Your task to perform on an android device: open app "Walmart Shopping & Grocery" (install if not already installed) and enter user name: "Hans@icloud.com" and password: "executing" Image 0: 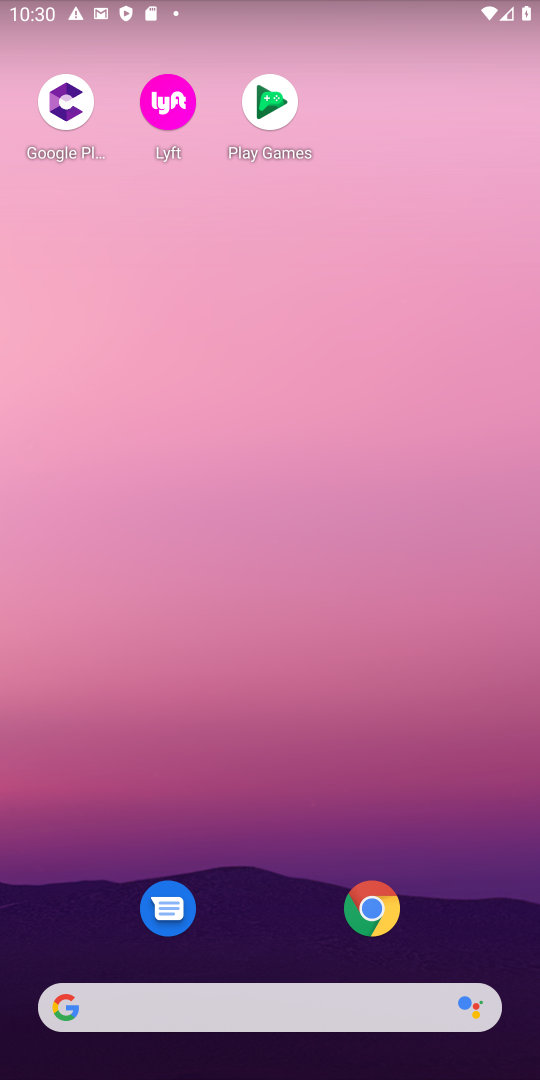
Step 0: drag from (289, 945) to (331, 24)
Your task to perform on an android device: open app "Walmart Shopping & Grocery" (install if not already installed) and enter user name: "Hans@icloud.com" and password: "executing" Image 1: 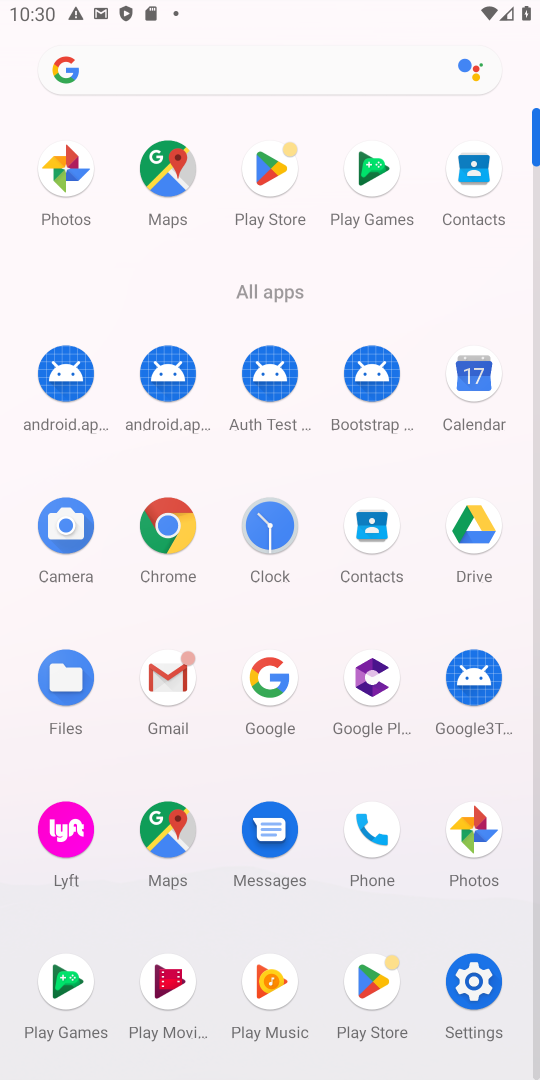
Step 1: click (281, 162)
Your task to perform on an android device: open app "Walmart Shopping & Grocery" (install if not already installed) and enter user name: "Hans@icloud.com" and password: "executing" Image 2: 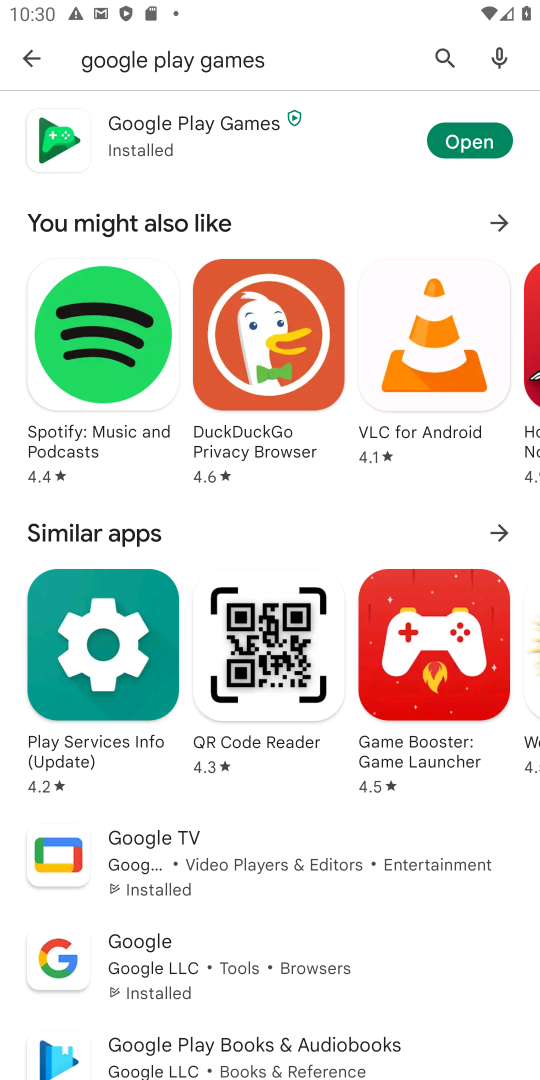
Step 2: click (446, 57)
Your task to perform on an android device: open app "Walmart Shopping & Grocery" (install if not already installed) and enter user name: "Hans@icloud.com" and password: "executing" Image 3: 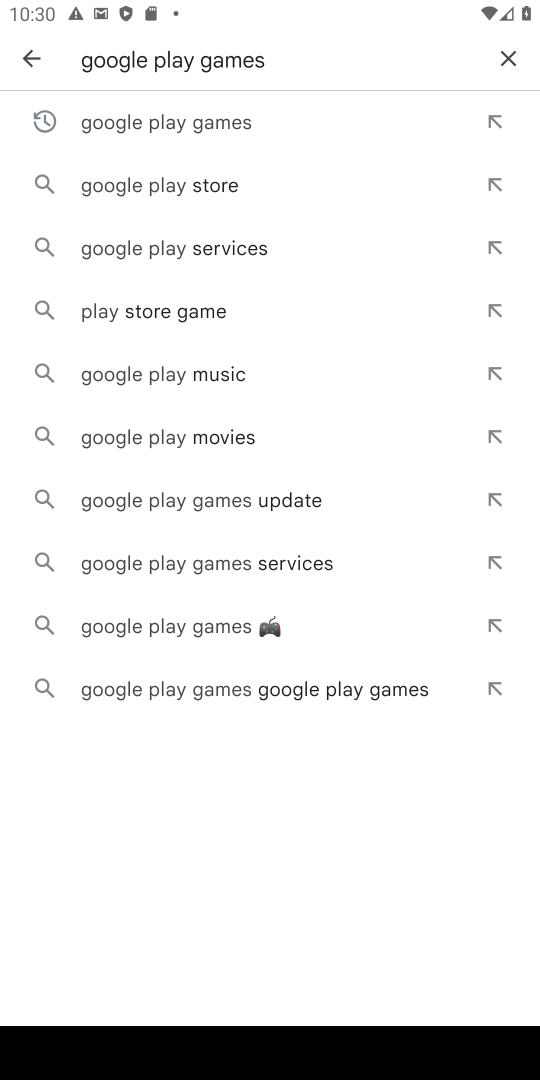
Step 3: click (510, 60)
Your task to perform on an android device: open app "Walmart Shopping & Grocery" (install if not already installed) and enter user name: "Hans@icloud.com" and password: "executing" Image 4: 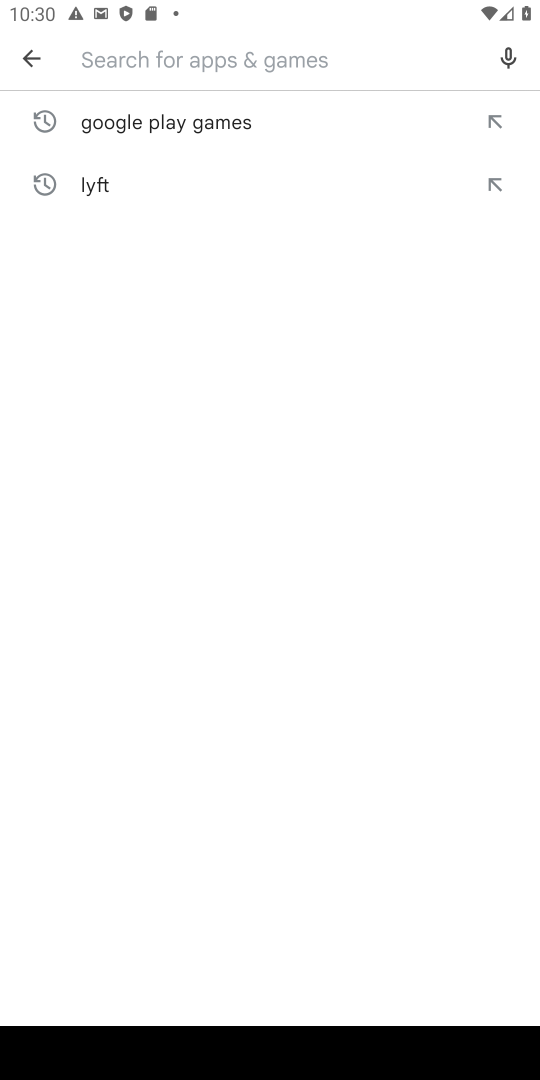
Step 4: click (152, 68)
Your task to perform on an android device: open app "Walmart Shopping & Grocery" (install if not already installed) and enter user name: "Hans@icloud.com" and password: "executing" Image 5: 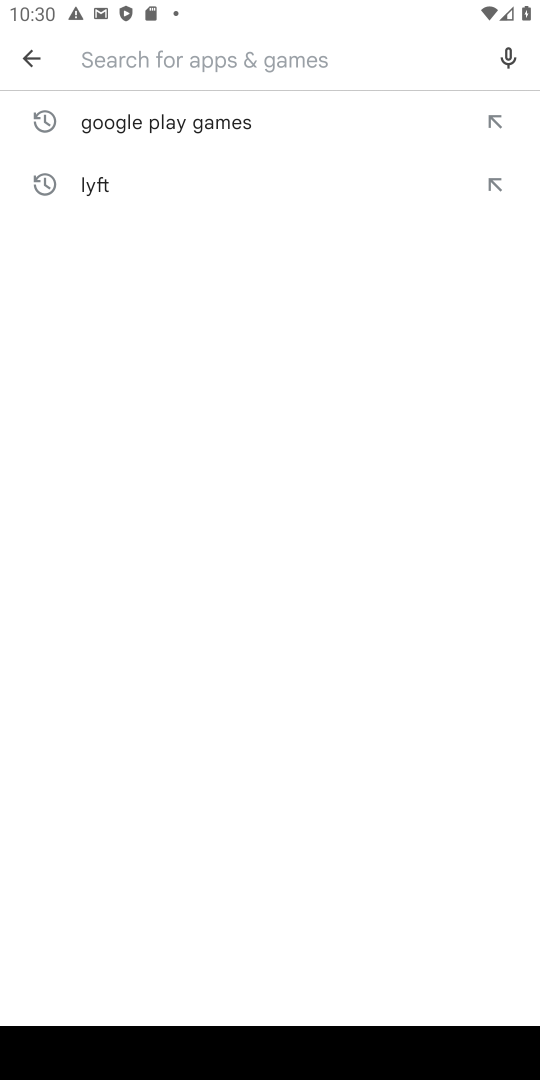
Step 5: type "walmart"
Your task to perform on an android device: open app "Walmart Shopping & Grocery" (install if not already installed) and enter user name: "Hans@icloud.com" and password: "executing" Image 6: 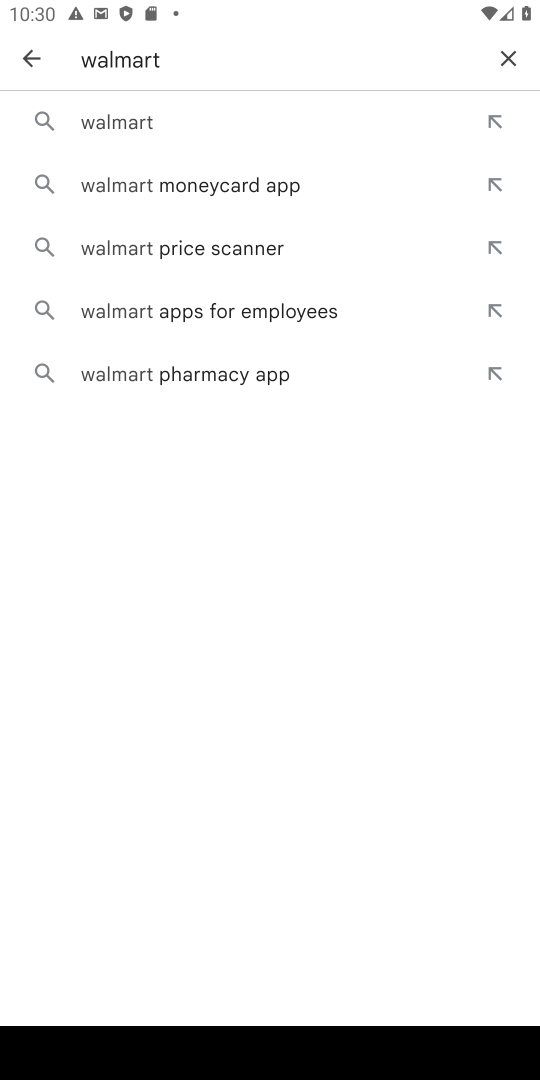
Step 6: click (120, 124)
Your task to perform on an android device: open app "Walmart Shopping & Grocery" (install if not already installed) and enter user name: "Hans@icloud.com" and password: "executing" Image 7: 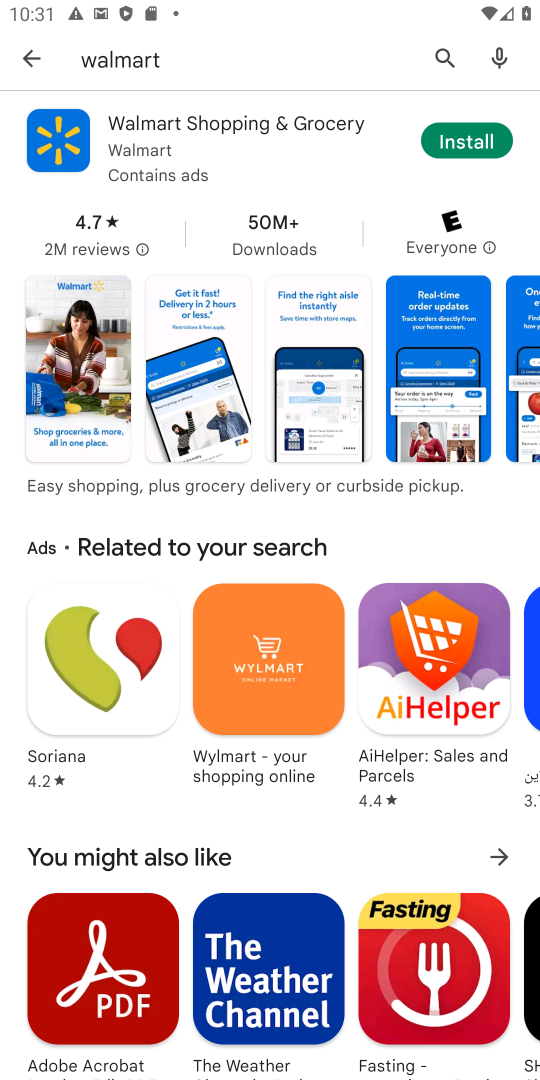
Step 7: click (479, 137)
Your task to perform on an android device: open app "Walmart Shopping & Grocery" (install if not already installed) and enter user name: "Hans@icloud.com" and password: "executing" Image 8: 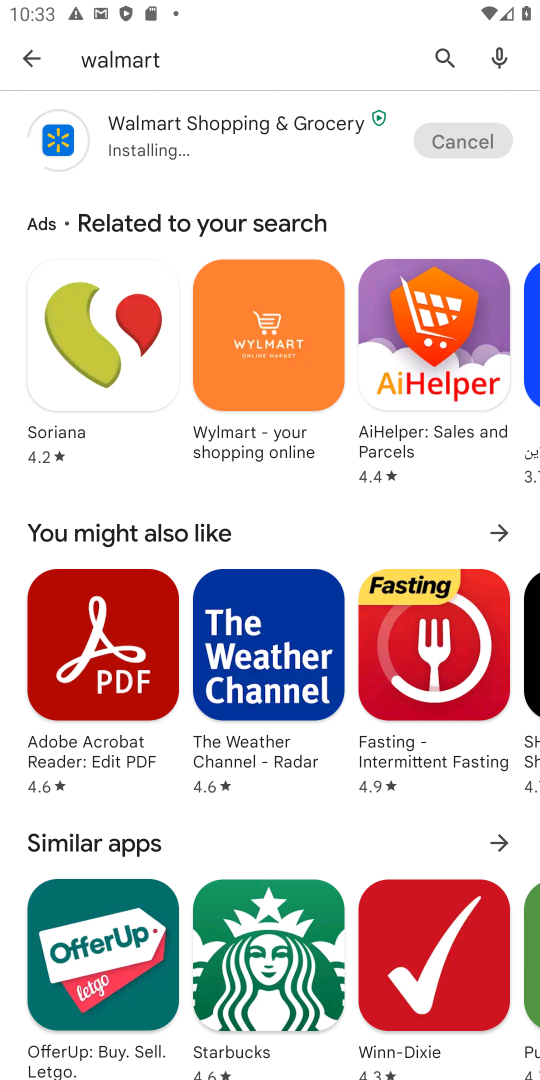
Step 8: press back button
Your task to perform on an android device: open app "Walmart Shopping & Grocery" (install if not already installed) and enter user name: "Hans@icloud.com" and password: "executing" Image 9: 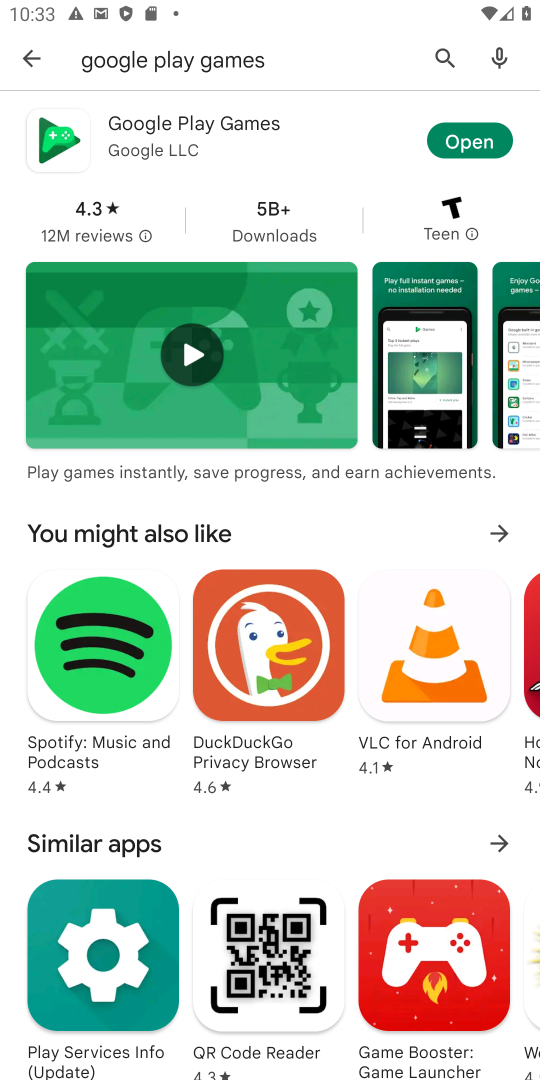
Step 9: click (439, 51)
Your task to perform on an android device: open app "Walmart Shopping & Grocery" (install if not already installed) and enter user name: "Hans@icloud.com" and password: "executing" Image 10: 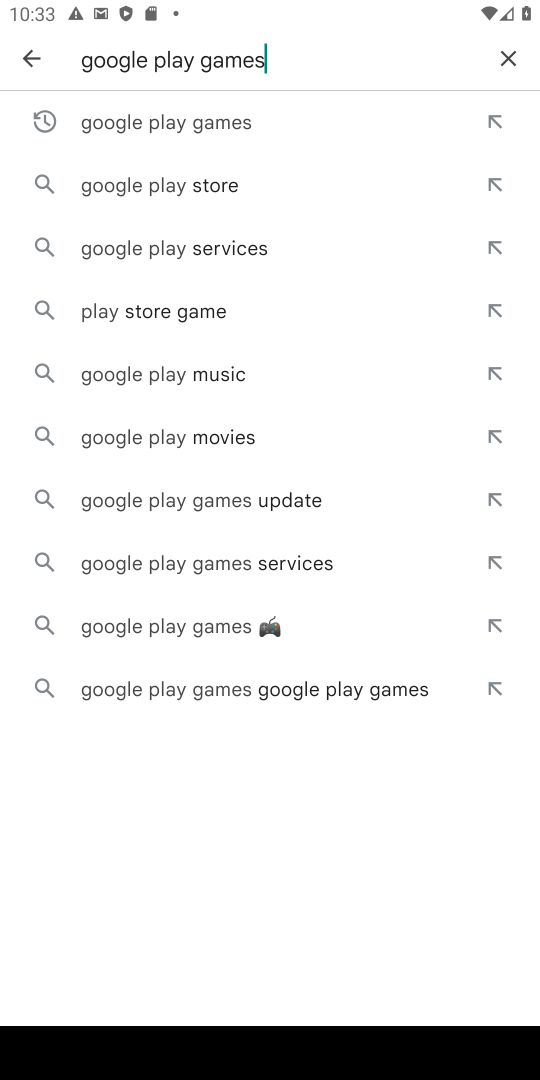
Step 10: click (520, 64)
Your task to perform on an android device: open app "Walmart Shopping & Grocery" (install if not already installed) and enter user name: "Hans@icloud.com" and password: "executing" Image 11: 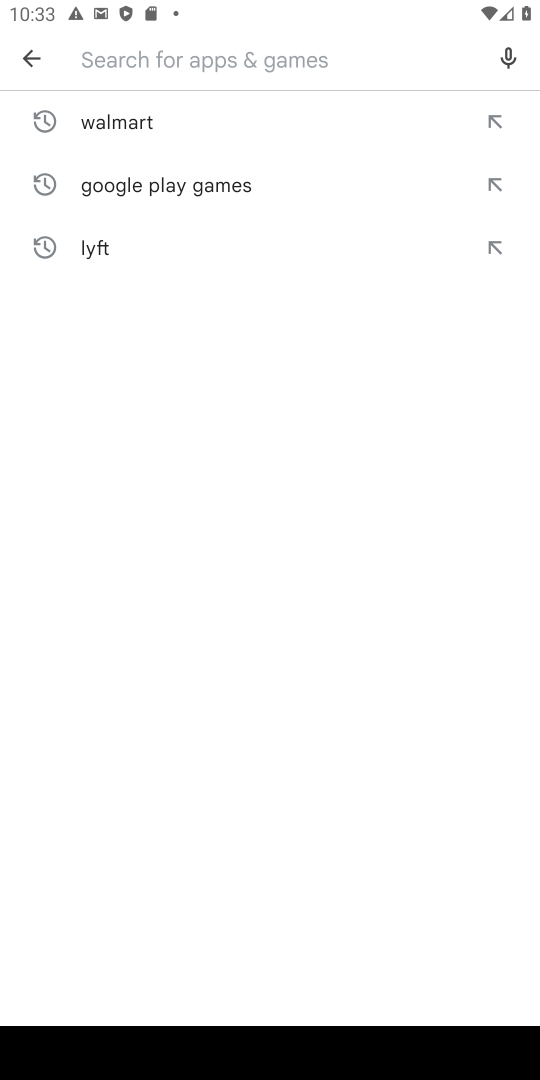
Step 11: click (183, 119)
Your task to perform on an android device: open app "Walmart Shopping & Grocery" (install if not already installed) and enter user name: "Hans@icloud.com" and password: "executing" Image 12: 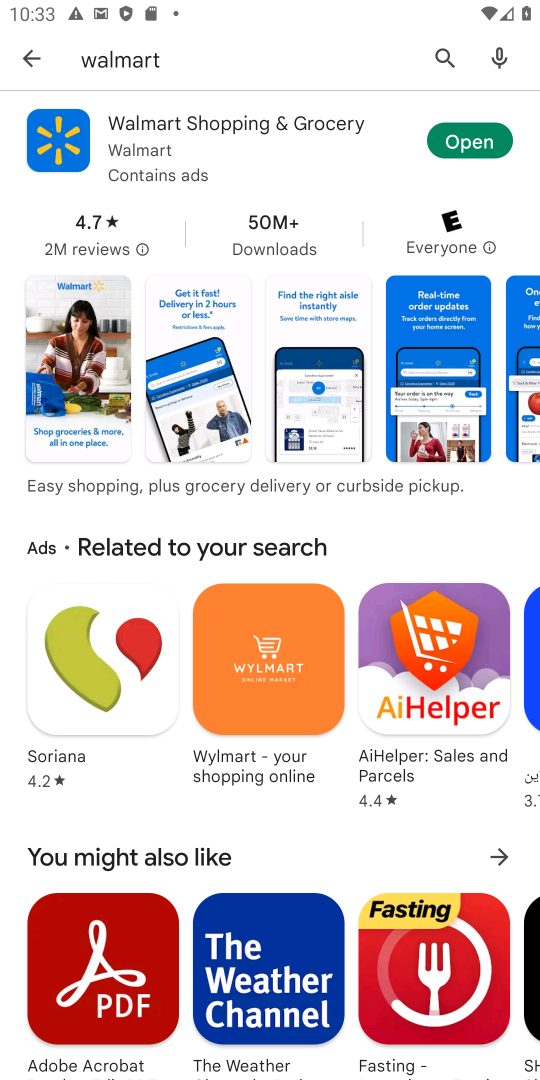
Step 12: click (470, 150)
Your task to perform on an android device: open app "Walmart Shopping & Grocery" (install if not already installed) and enter user name: "Hans@icloud.com" and password: "executing" Image 13: 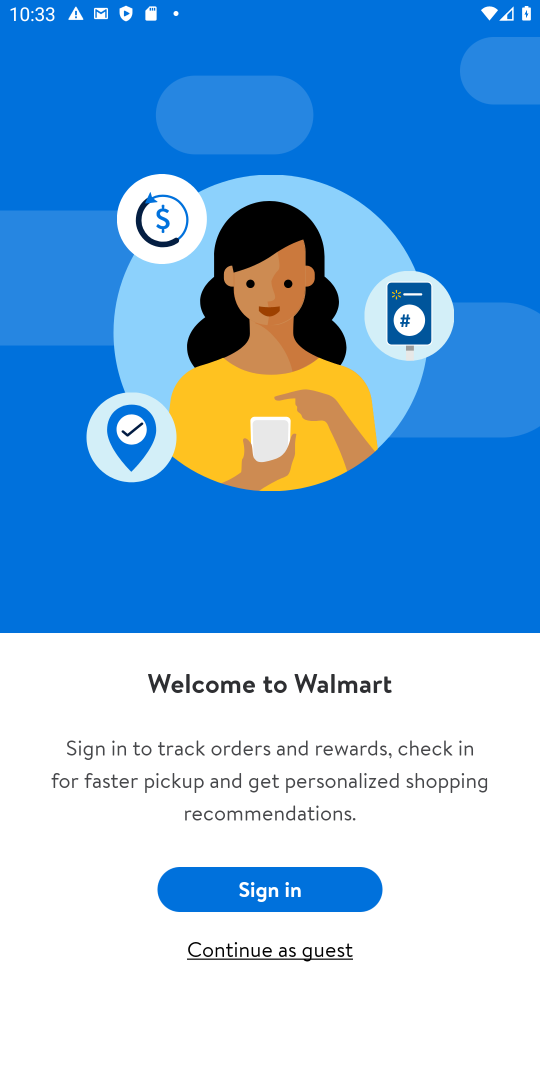
Step 13: click (281, 901)
Your task to perform on an android device: open app "Walmart Shopping & Grocery" (install if not already installed) and enter user name: "Hans@icloud.com" and password: "executing" Image 14: 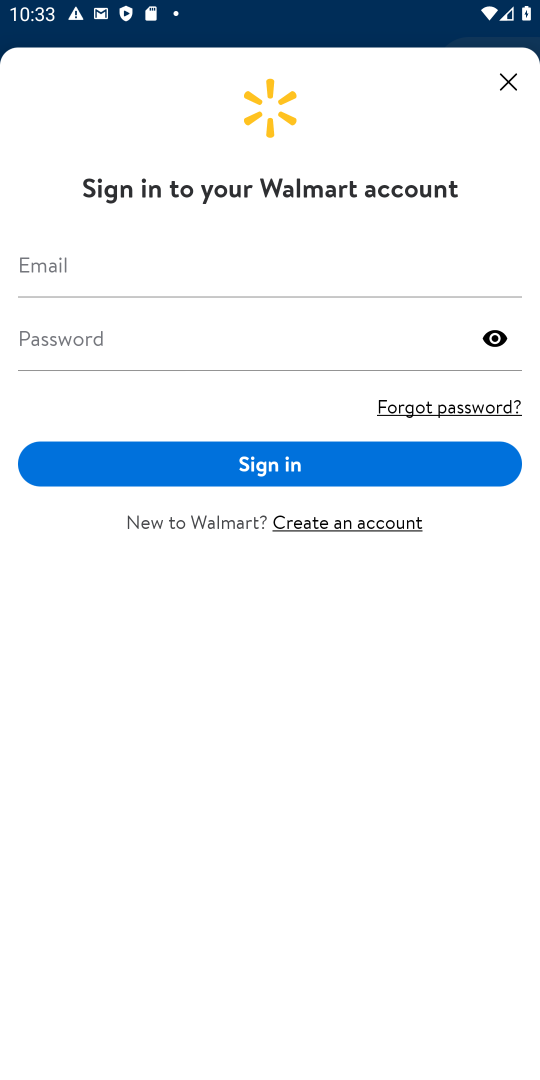
Step 14: click (134, 274)
Your task to perform on an android device: open app "Walmart Shopping & Grocery" (install if not already installed) and enter user name: "Hans@icloud.com" and password: "executing" Image 15: 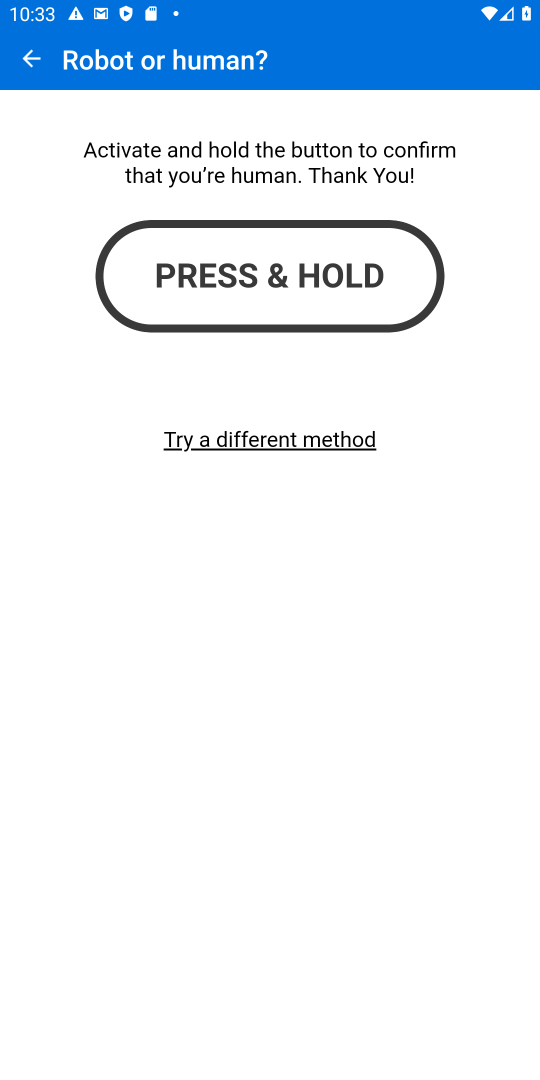
Step 15: click (246, 294)
Your task to perform on an android device: open app "Walmart Shopping & Grocery" (install if not already installed) and enter user name: "Hans@icloud.com" and password: "executing" Image 16: 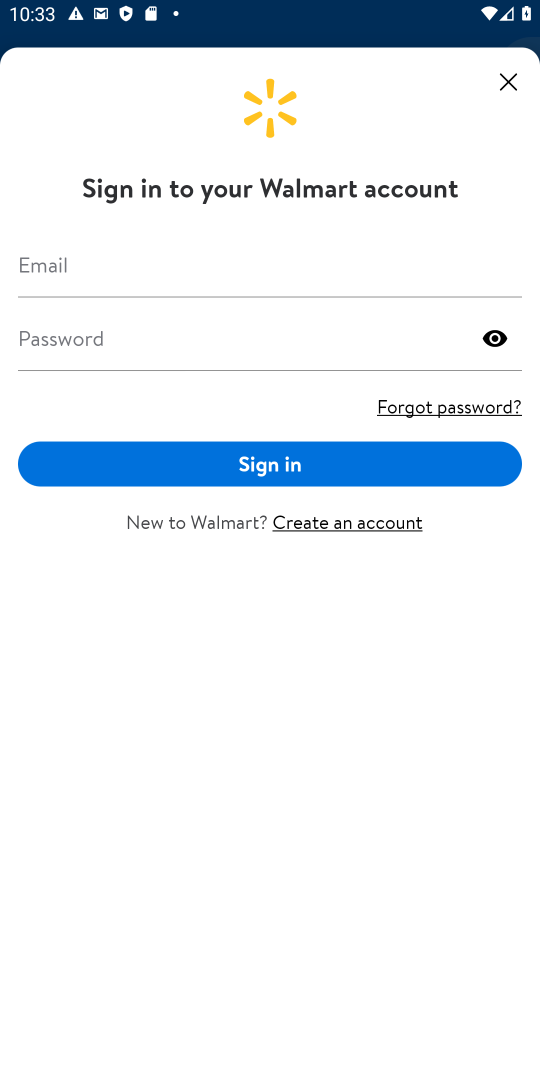
Step 16: click (117, 258)
Your task to perform on an android device: open app "Walmart Shopping & Grocery" (install if not already installed) and enter user name: "Hans@icloud.com" and password: "executing" Image 17: 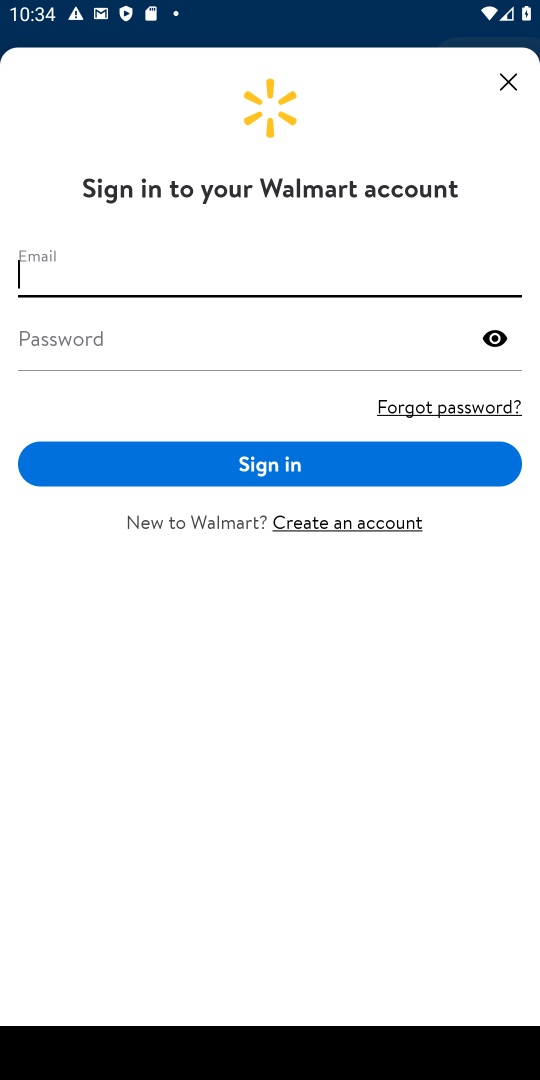
Step 17: click (144, 268)
Your task to perform on an android device: open app "Walmart Shopping & Grocery" (install if not already installed) and enter user name: "Hans@icloud.com" and password: "executing" Image 18: 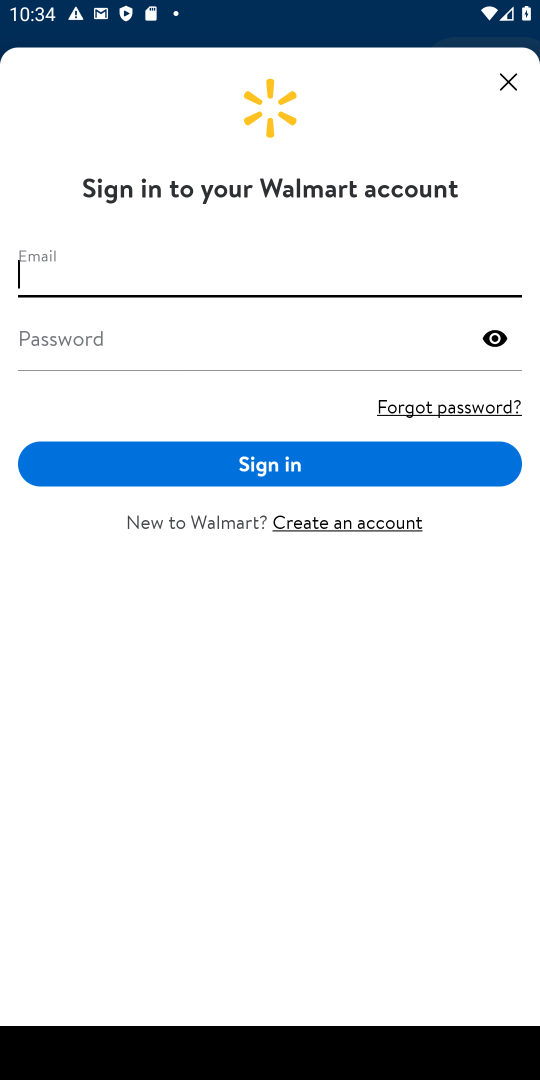
Step 18: type "Hans@icloud.com"
Your task to perform on an android device: open app "Walmart Shopping & Grocery" (install if not already installed) and enter user name: "Hans@icloud.com" and password: "executing" Image 19: 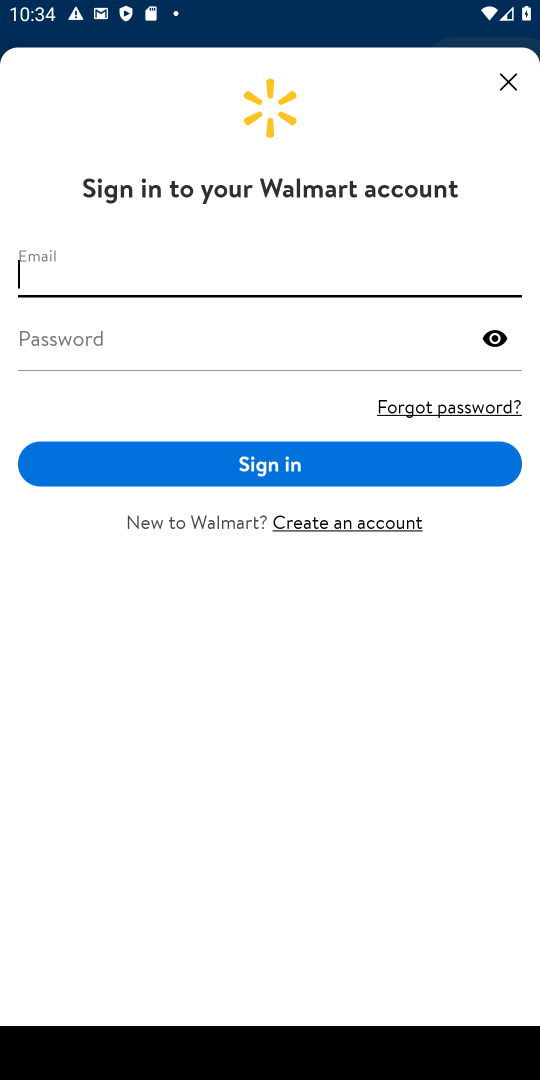
Step 19: click (266, 767)
Your task to perform on an android device: open app "Walmart Shopping & Grocery" (install if not already installed) and enter user name: "Hans@icloud.com" and password: "executing" Image 20: 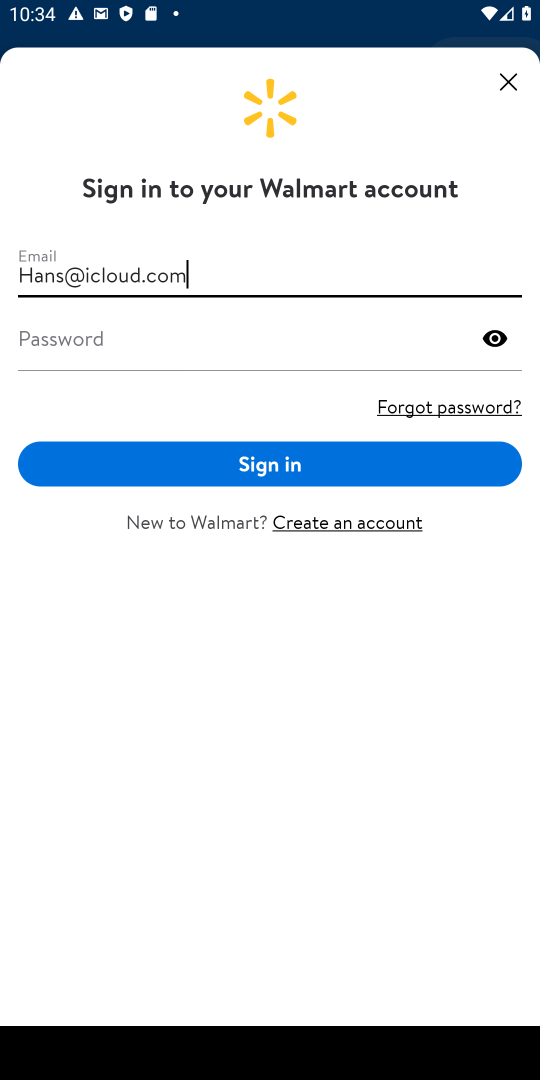
Step 20: click (63, 350)
Your task to perform on an android device: open app "Walmart Shopping & Grocery" (install if not already installed) and enter user name: "Hans@icloud.com" and password: "executing" Image 21: 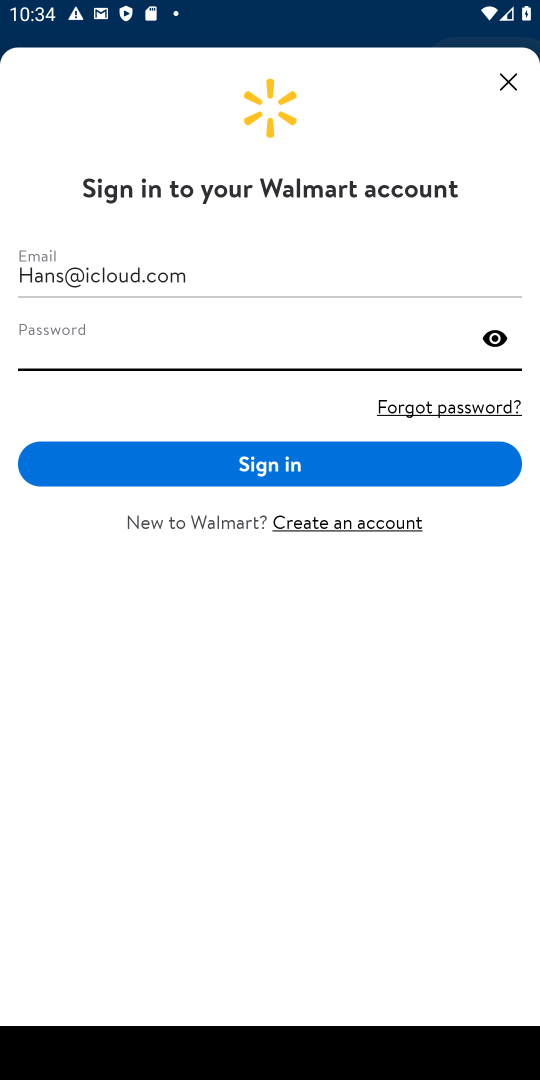
Step 21: click (119, 356)
Your task to perform on an android device: open app "Walmart Shopping & Grocery" (install if not already installed) and enter user name: "Hans@icloud.com" and password: "executing" Image 22: 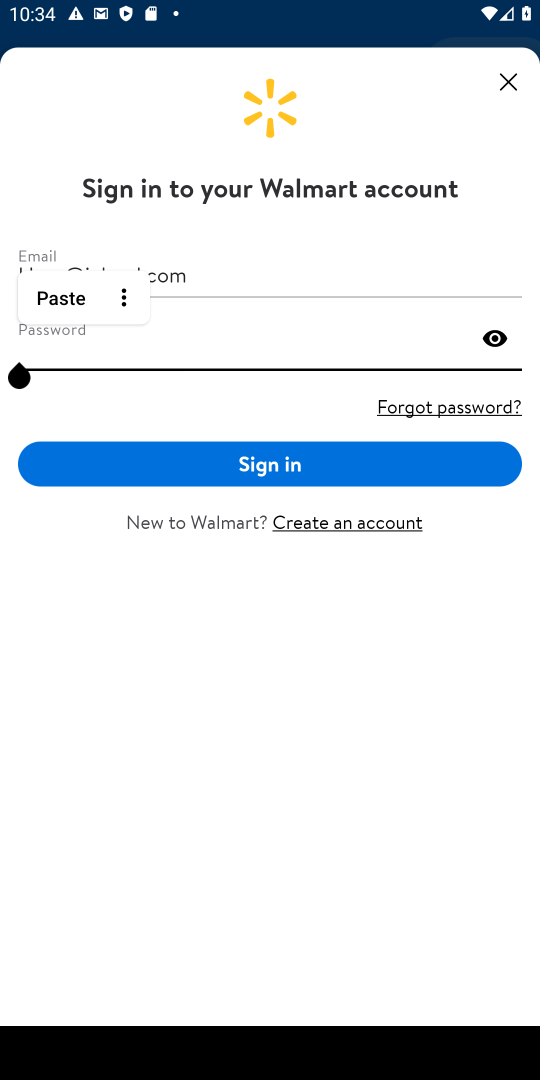
Step 22: type "executing"
Your task to perform on an android device: open app "Walmart Shopping & Grocery" (install if not already installed) and enter user name: "Hans@icloud.com" and password: "executing" Image 23: 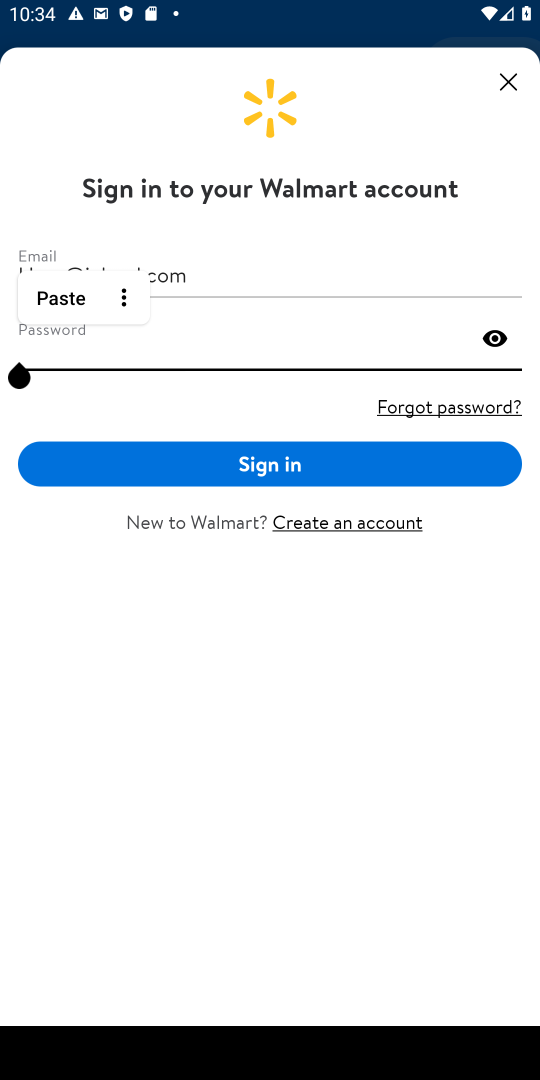
Step 23: click (265, 771)
Your task to perform on an android device: open app "Walmart Shopping & Grocery" (install if not already installed) and enter user name: "Hans@icloud.com" and password: "executing" Image 24: 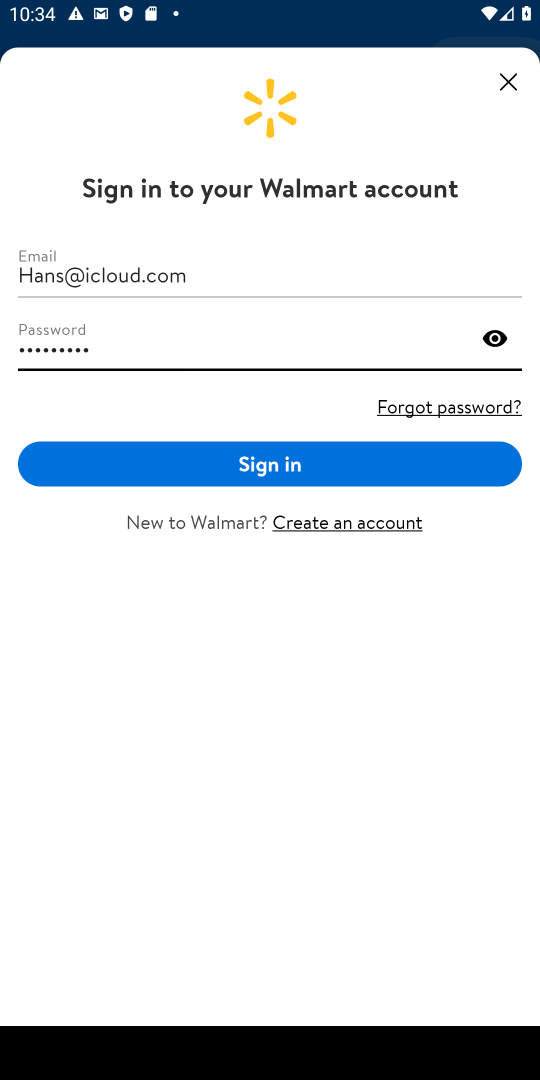
Step 24: task complete